Your task to perform on an android device: snooze an email in the gmail app Image 0: 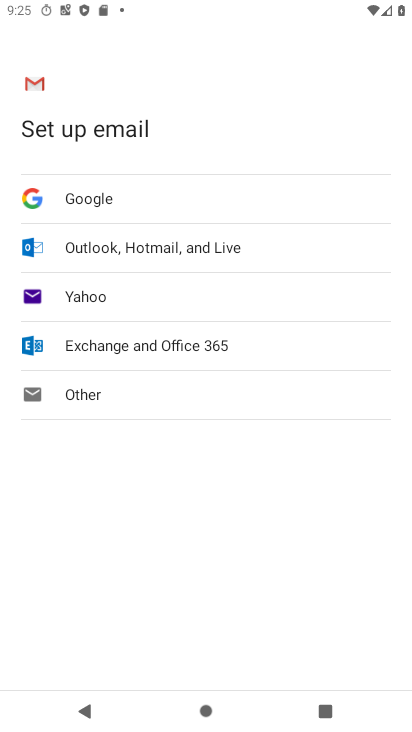
Step 0: press home button
Your task to perform on an android device: snooze an email in the gmail app Image 1: 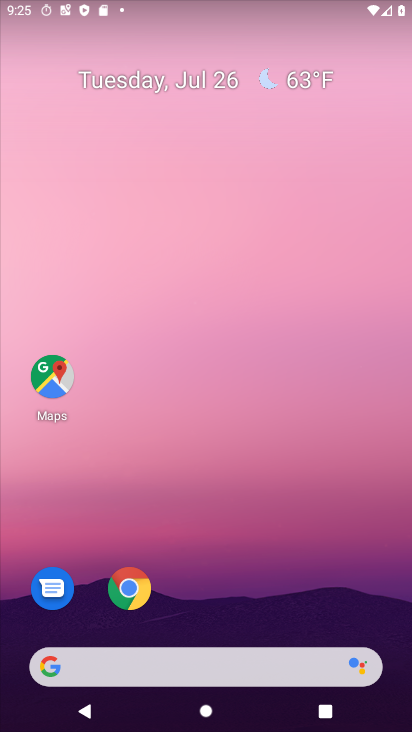
Step 1: drag from (220, 589) to (249, 6)
Your task to perform on an android device: snooze an email in the gmail app Image 2: 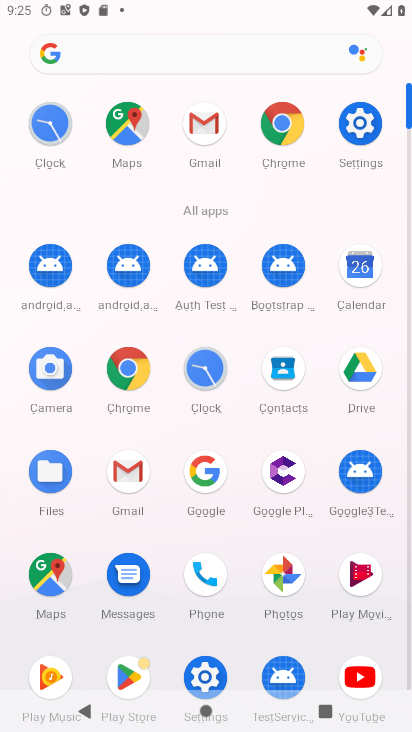
Step 2: click (204, 133)
Your task to perform on an android device: snooze an email in the gmail app Image 3: 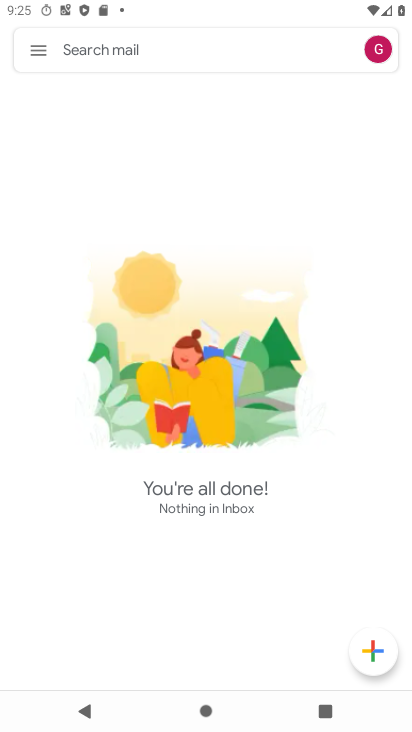
Step 3: task complete